Your task to perform on an android device: uninstall "Spotify" Image 0: 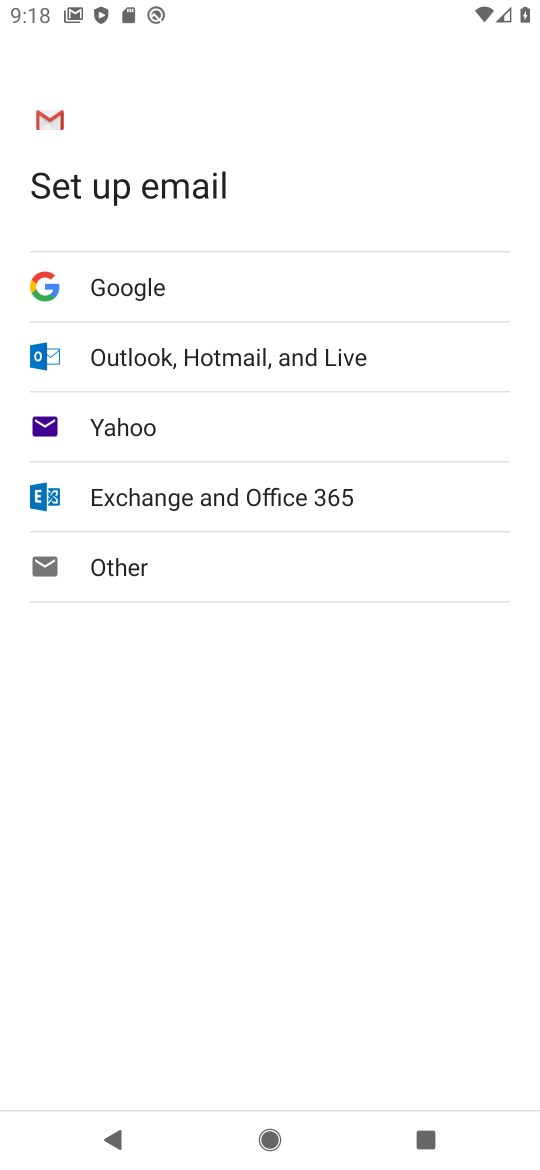
Step 0: press back button
Your task to perform on an android device: uninstall "Spotify" Image 1: 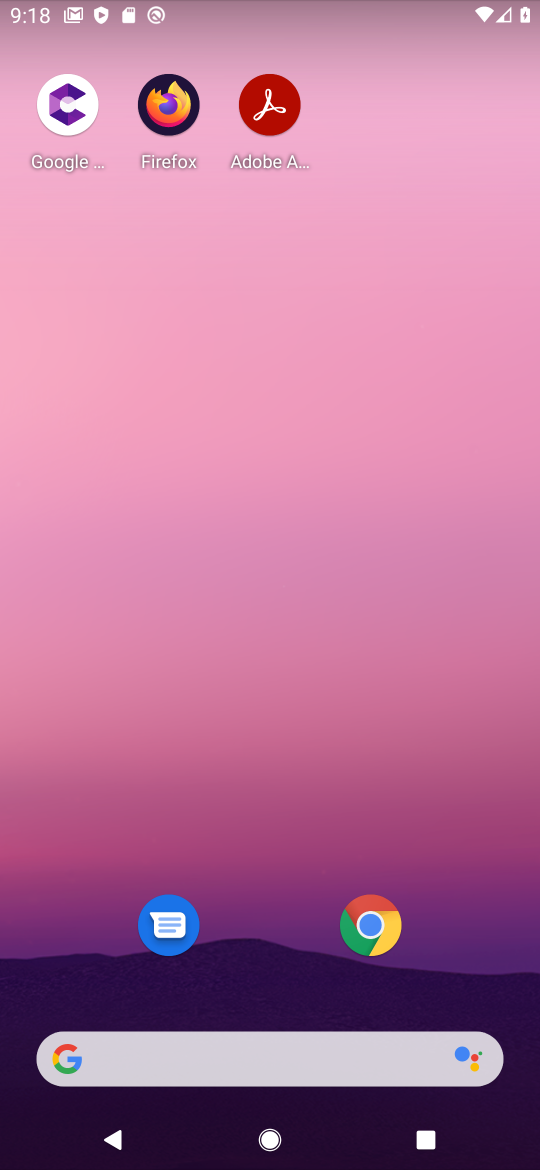
Step 1: drag from (239, 843) to (321, 8)
Your task to perform on an android device: uninstall "Spotify" Image 2: 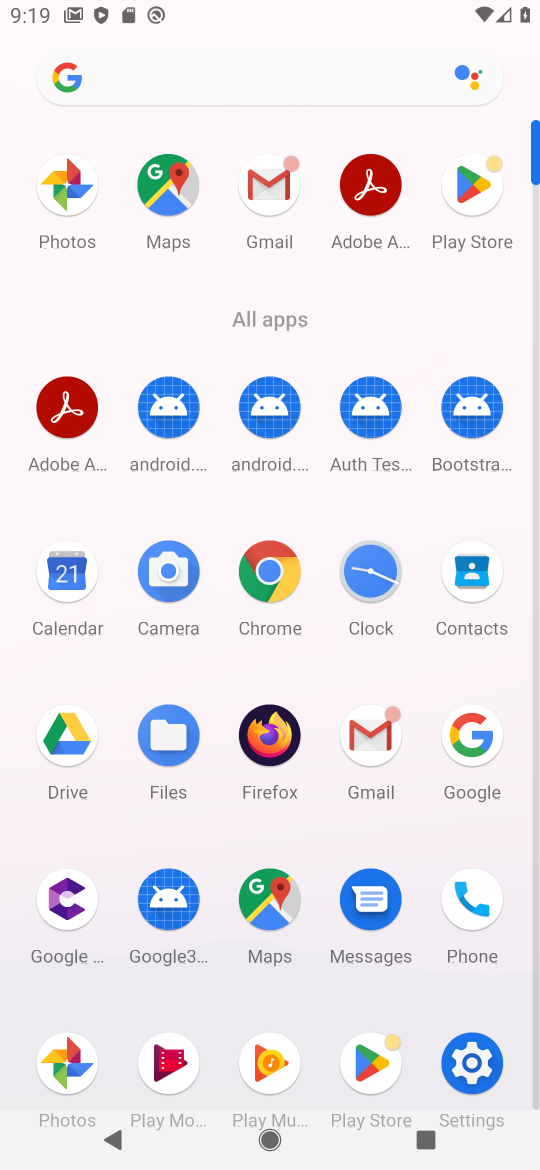
Step 2: click (460, 161)
Your task to perform on an android device: uninstall "Spotify" Image 3: 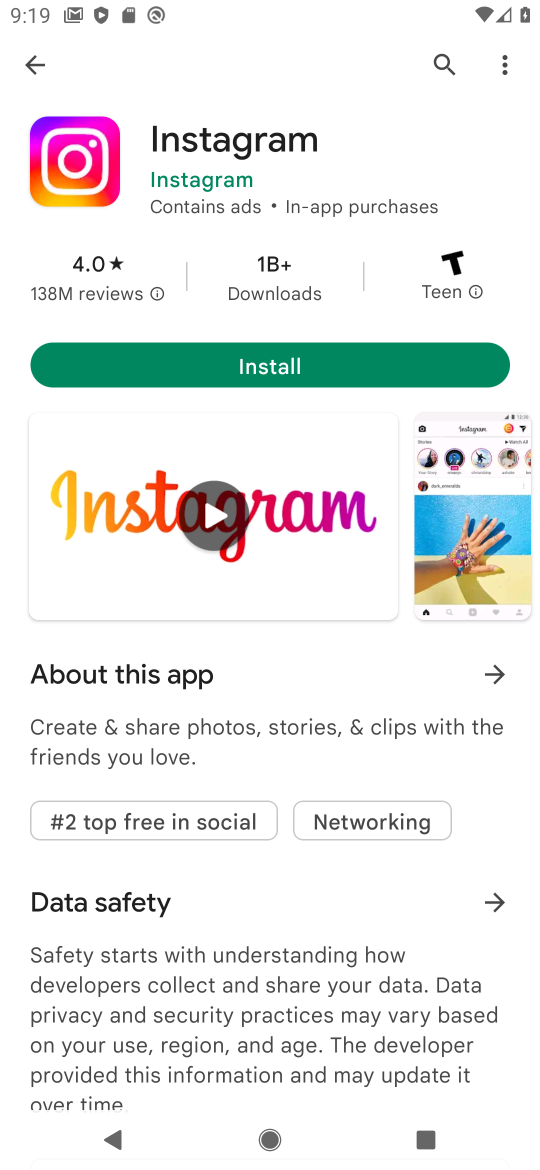
Step 3: click (455, 43)
Your task to perform on an android device: uninstall "Spotify" Image 4: 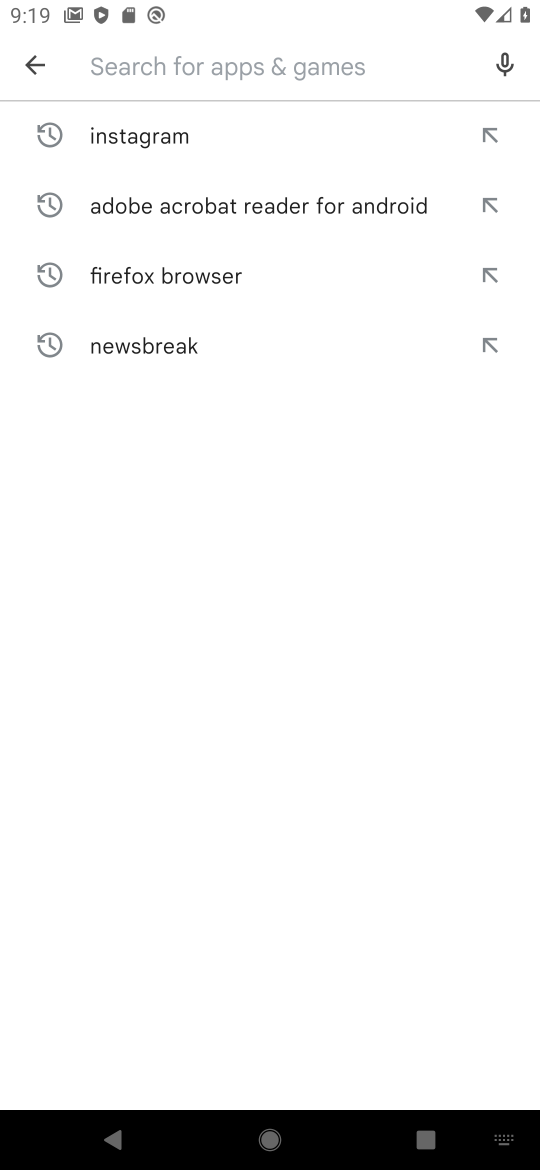
Step 4: type "spotify"
Your task to perform on an android device: uninstall "Spotify" Image 5: 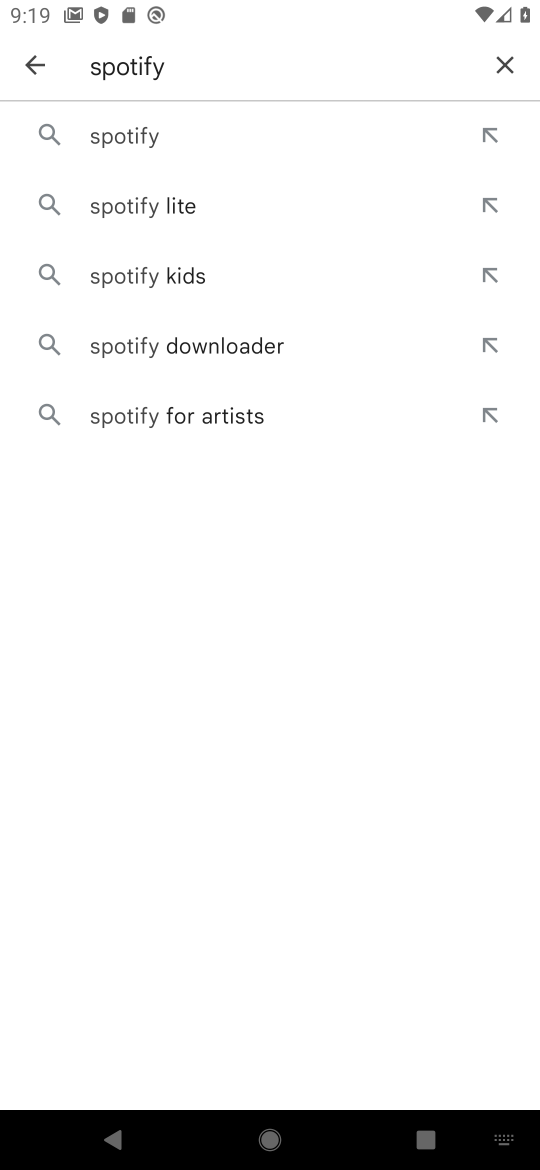
Step 5: click (82, 155)
Your task to perform on an android device: uninstall "Spotify" Image 6: 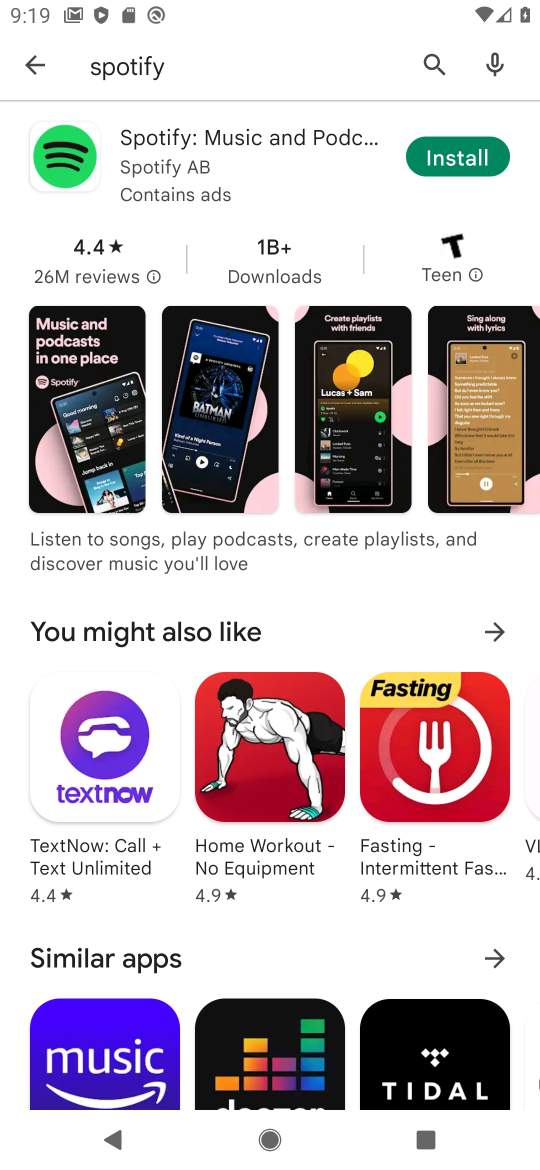
Step 6: task complete